Your task to perform on an android device: Open Amazon Image 0: 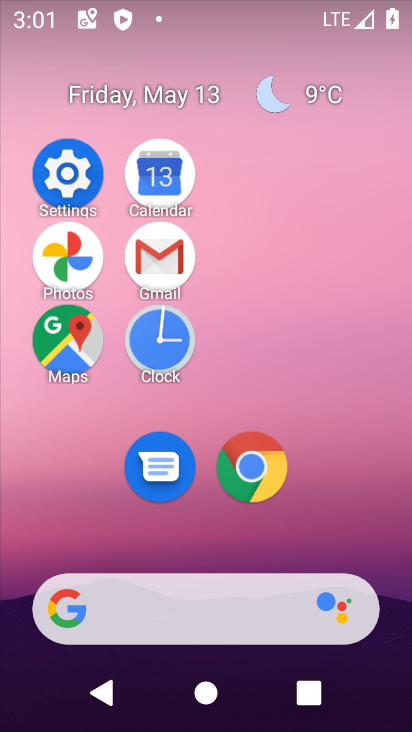
Step 0: click (269, 457)
Your task to perform on an android device: Open Amazon Image 1: 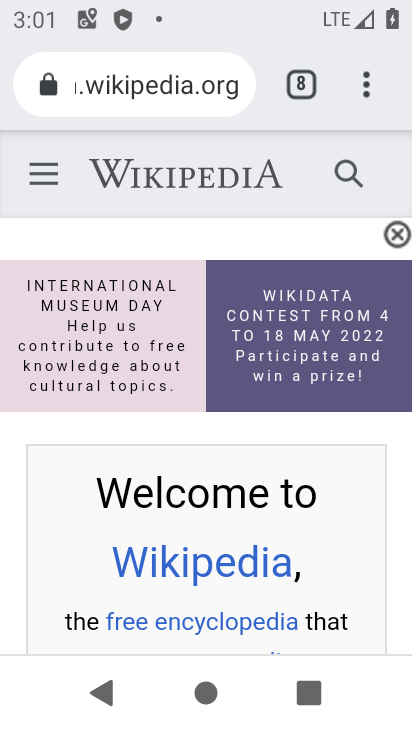
Step 1: click (291, 94)
Your task to perform on an android device: Open Amazon Image 2: 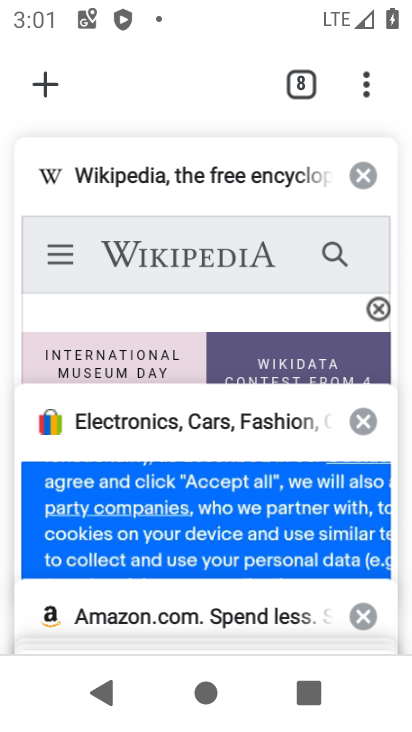
Step 2: drag from (187, 200) to (177, 560)
Your task to perform on an android device: Open Amazon Image 3: 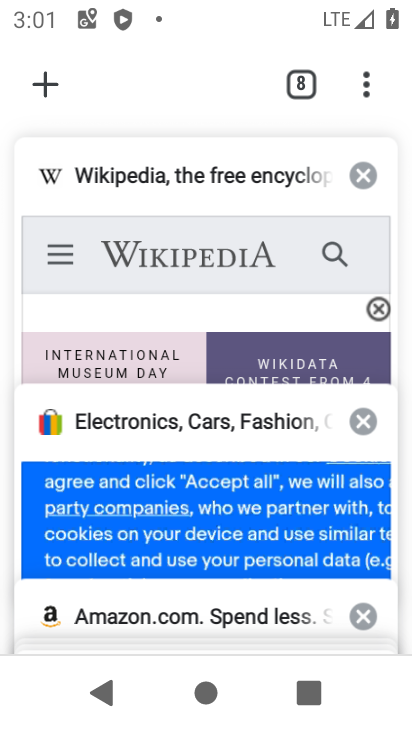
Step 3: drag from (220, 199) to (197, 584)
Your task to perform on an android device: Open Amazon Image 4: 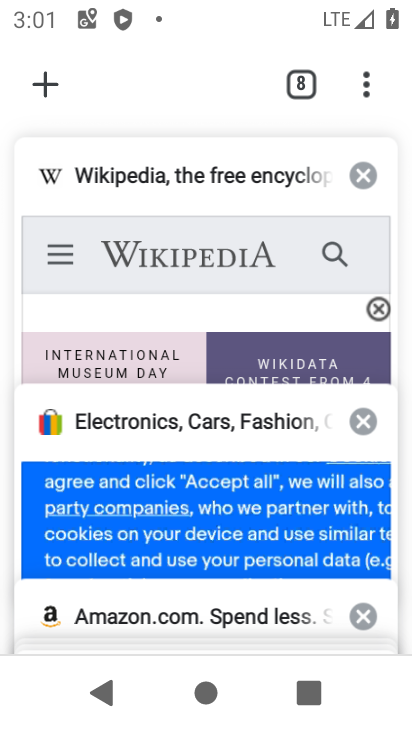
Step 4: click (48, 80)
Your task to perform on an android device: Open Amazon Image 5: 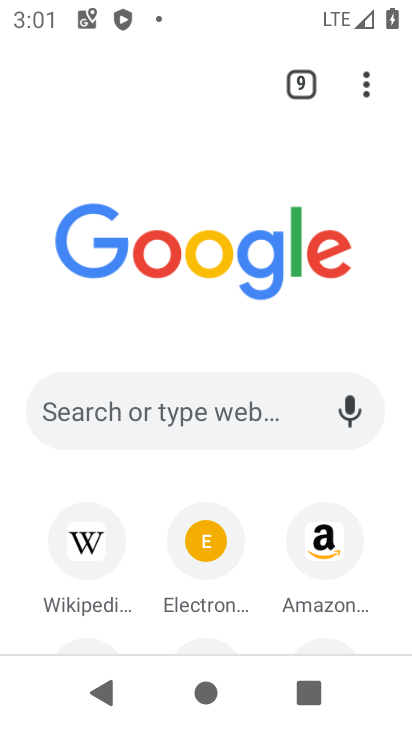
Step 5: click (314, 525)
Your task to perform on an android device: Open Amazon Image 6: 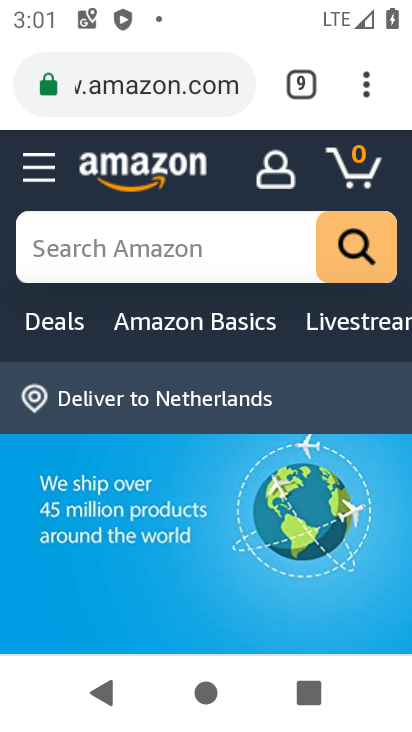
Step 6: task complete